Your task to perform on an android device: Open Google Image 0: 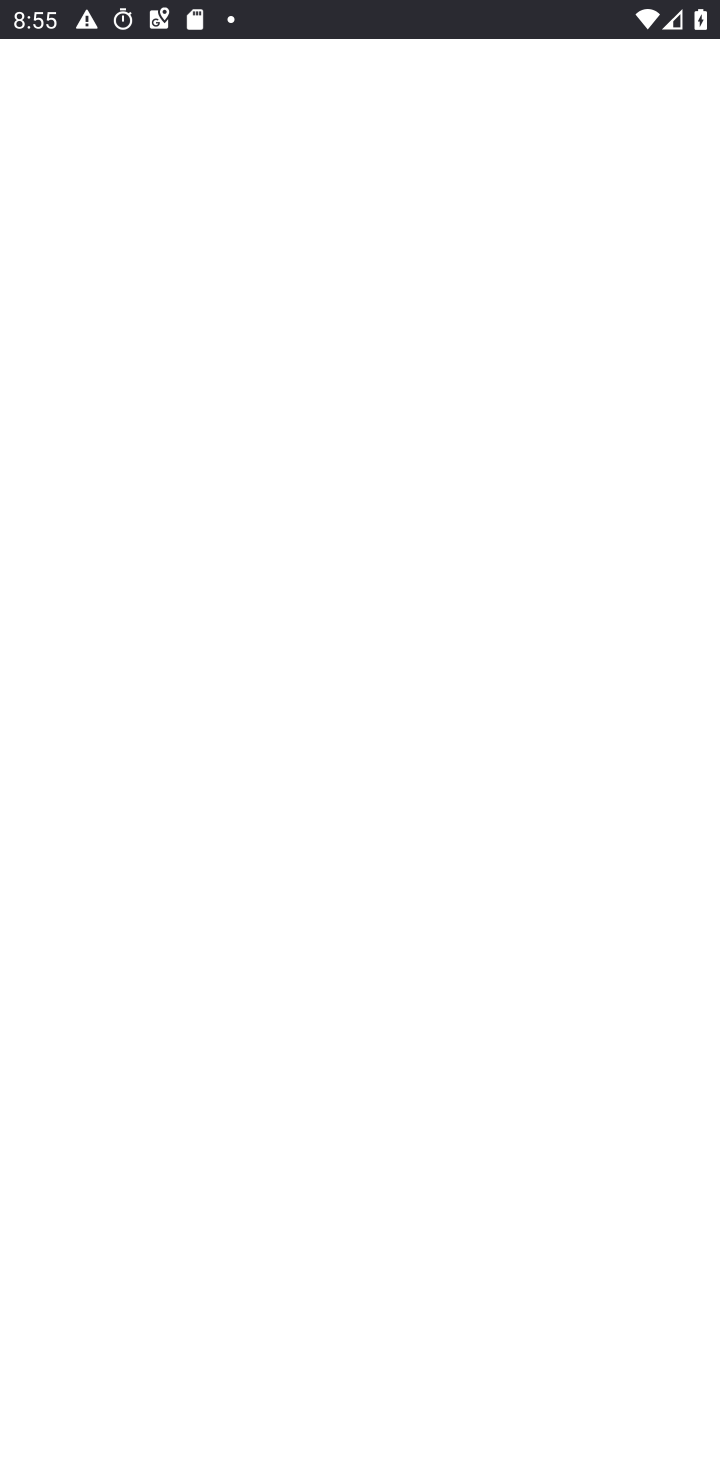
Step 0: press home button
Your task to perform on an android device: Open Google Image 1: 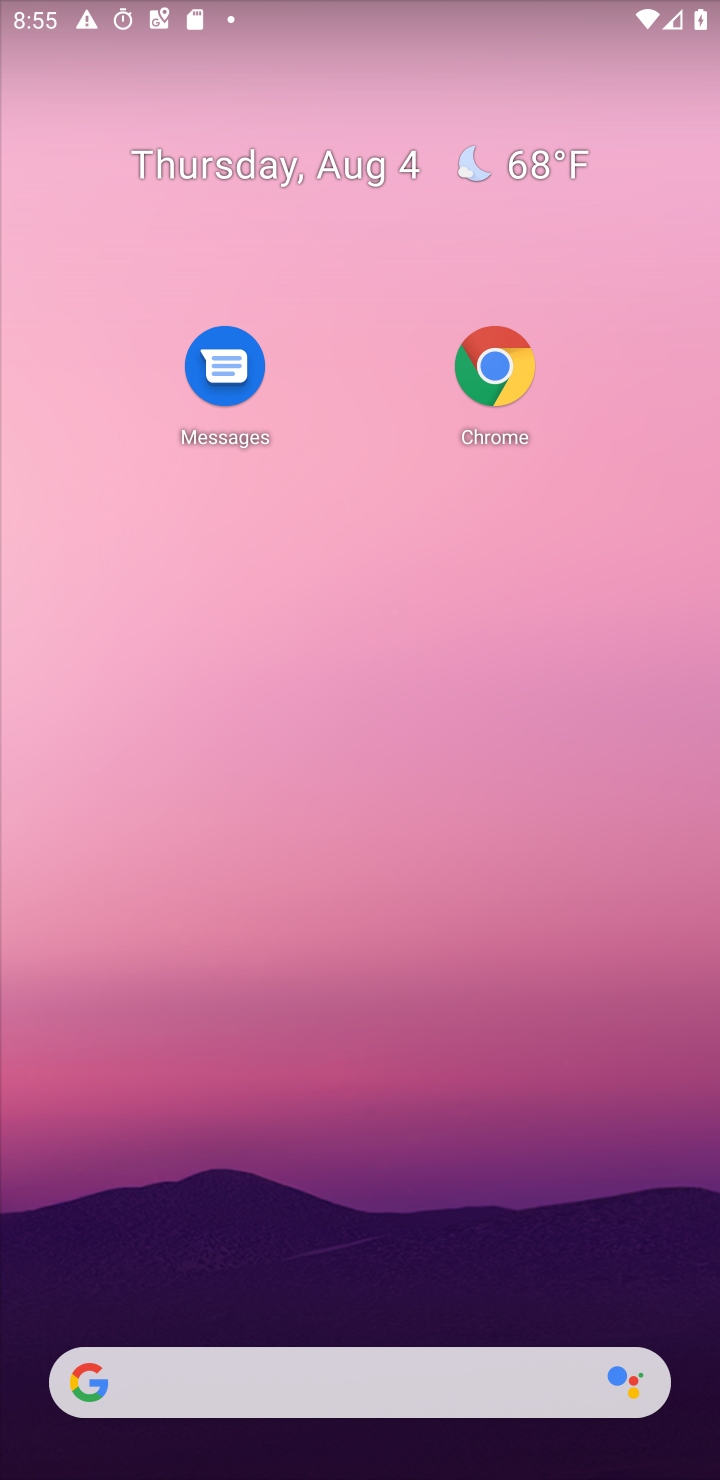
Step 1: drag from (414, 1441) to (297, 363)
Your task to perform on an android device: Open Google Image 2: 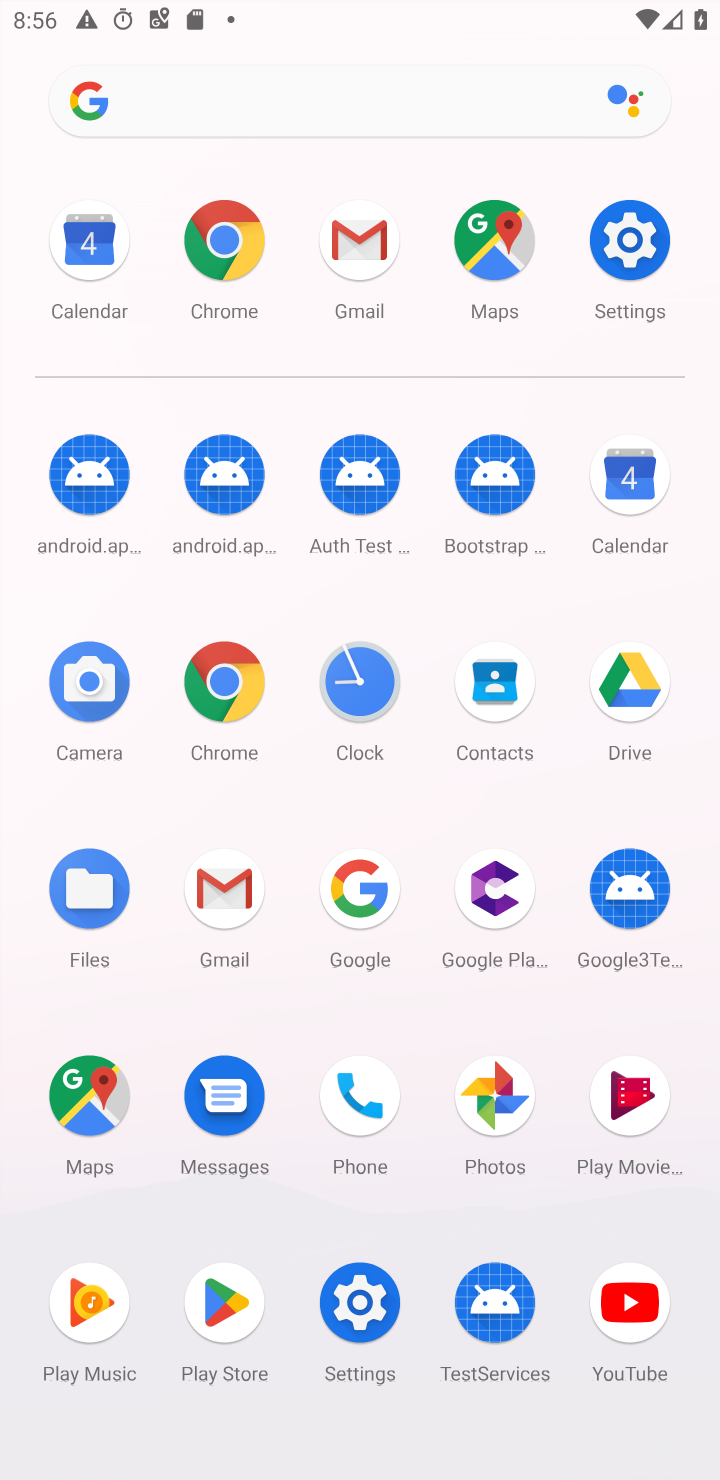
Step 2: click (66, 93)
Your task to perform on an android device: Open Google Image 3: 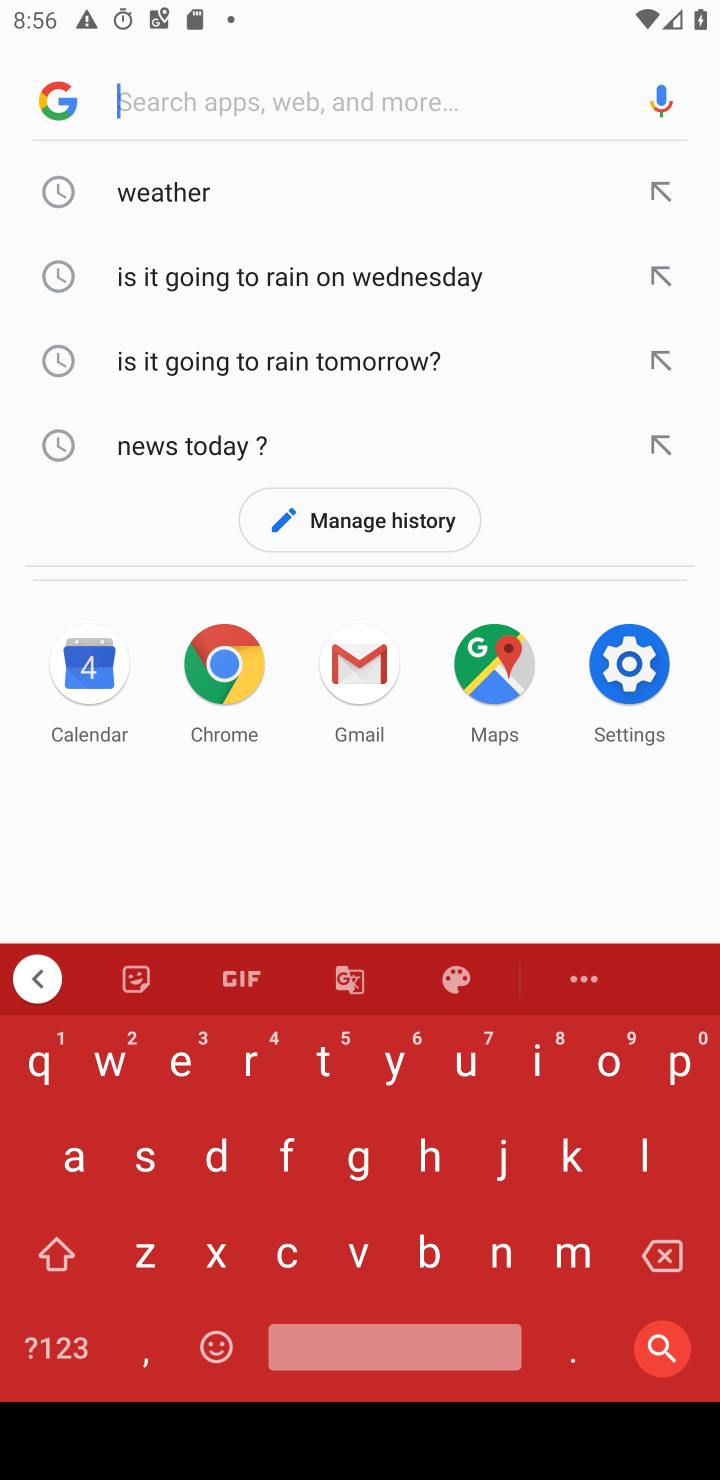
Step 3: click (66, 93)
Your task to perform on an android device: Open Google Image 4: 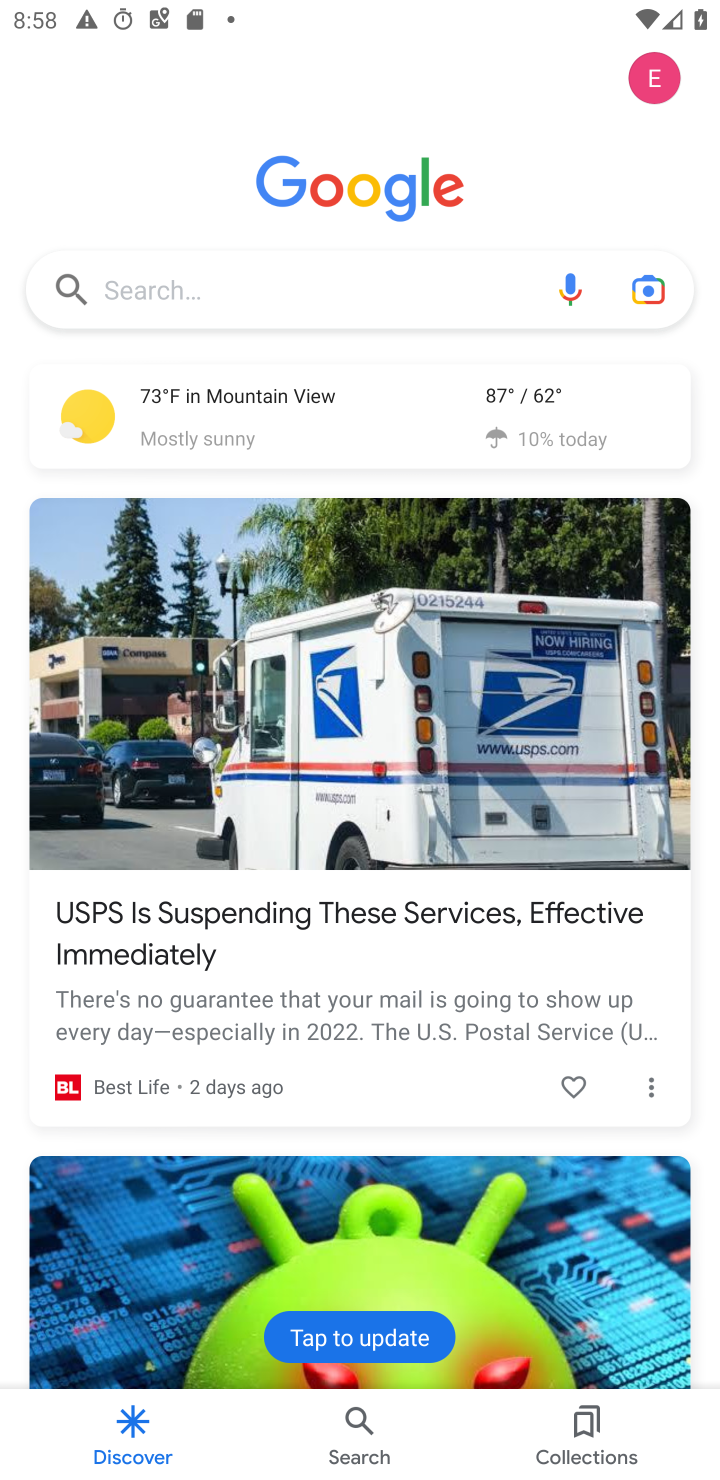
Step 4: task complete